Your task to perform on an android device: Go to accessibility settings Image 0: 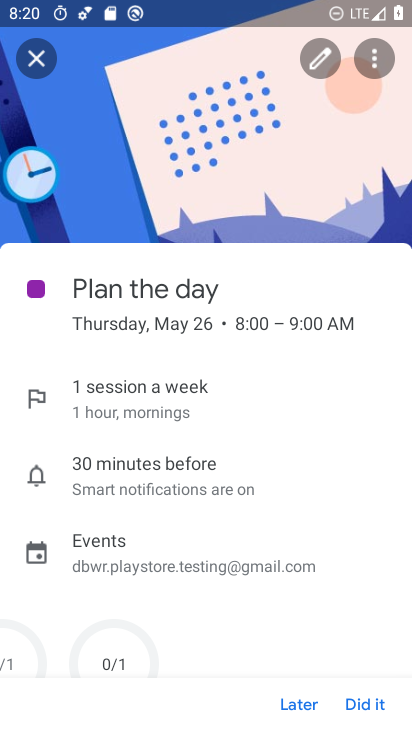
Step 0: press back button
Your task to perform on an android device: Go to accessibility settings Image 1: 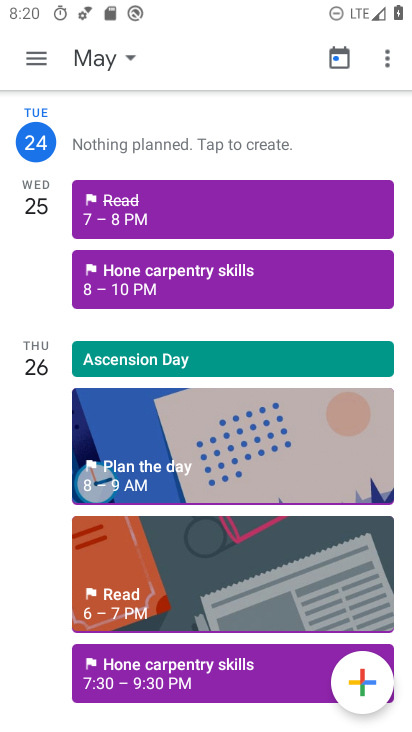
Step 1: press home button
Your task to perform on an android device: Go to accessibility settings Image 2: 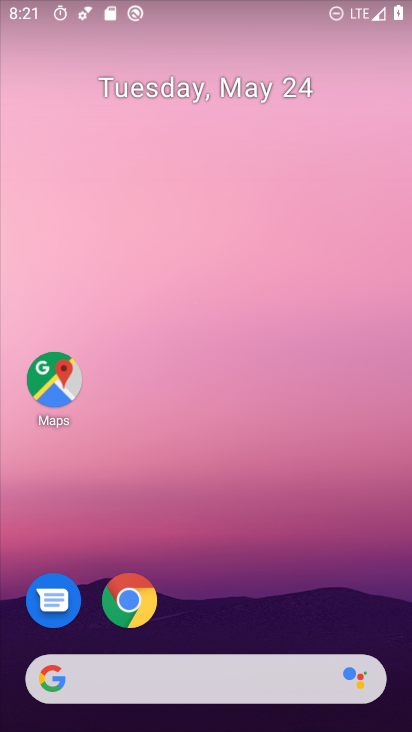
Step 2: drag from (241, 592) to (240, 119)
Your task to perform on an android device: Go to accessibility settings Image 3: 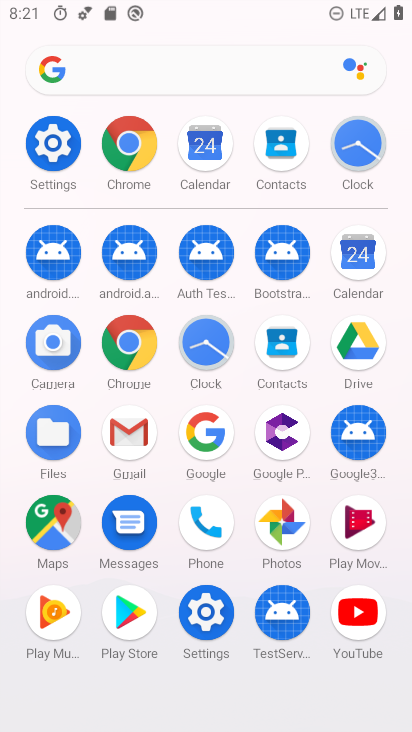
Step 3: click (66, 155)
Your task to perform on an android device: Go to accessibility settings Image 4: 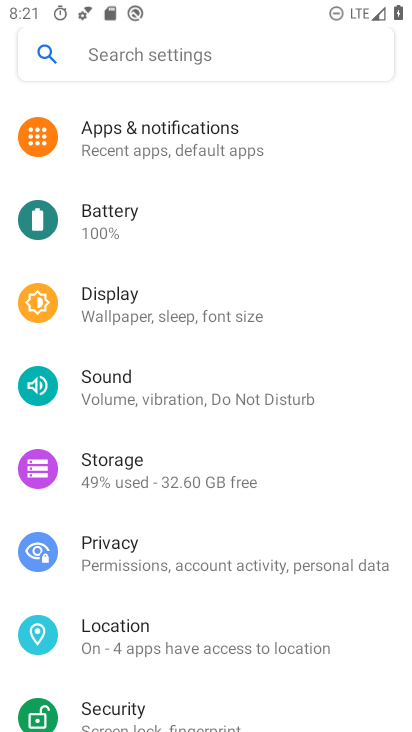
Step 4: drag from (216, 454) to (286, 53)
Your task to perform on an android device: Go to accessibility settings Image 5: 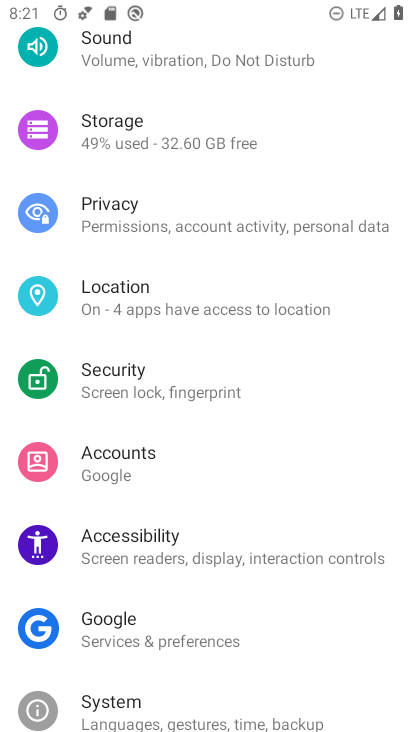
Step 5: click (160, 554)
Your task to perform on an android device: Go to accessibility settings Image 6: 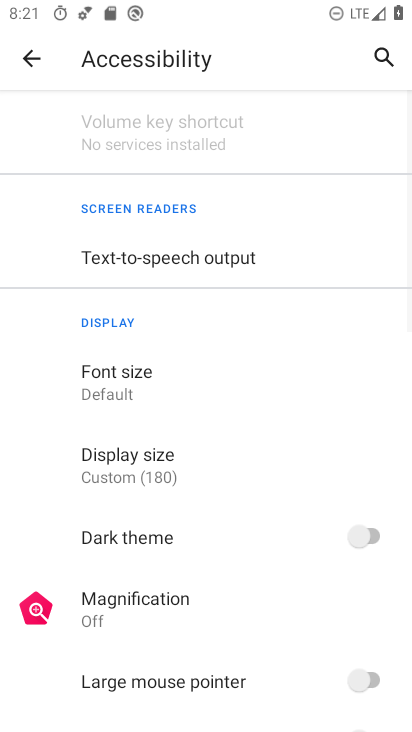
Step 6: task complete